Your task to perform on an android device: Open Google Maps Image 0: 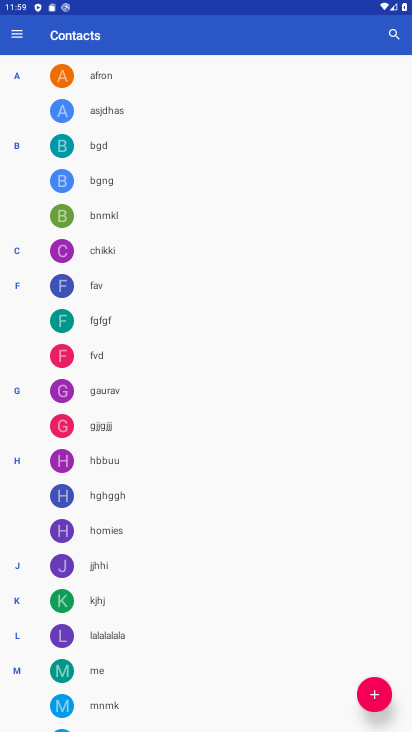
Step 0: press home button
Your task to perform on an android device: Open Google Maps Image 1: 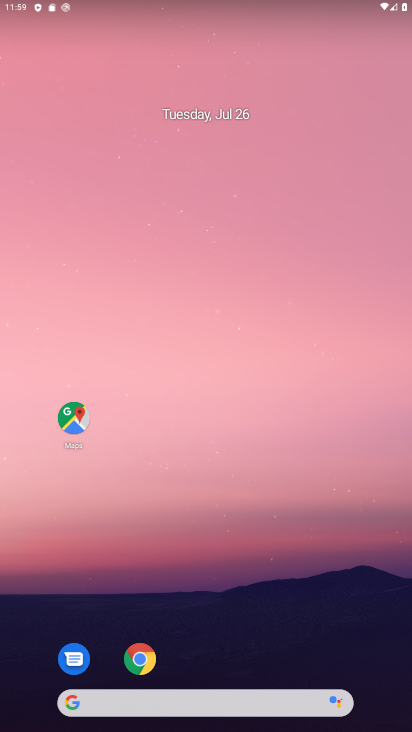
Step 1: drag from (301, 593) to (192, 93)
Your task to perform on an android device: Open Google Maps Image 2: 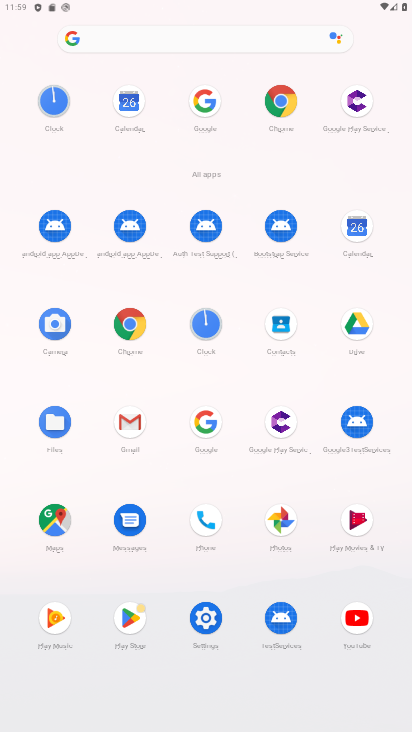
Step 2: click (65, 525)
Your task to perform on an android device: Open Google Maps Image 3: 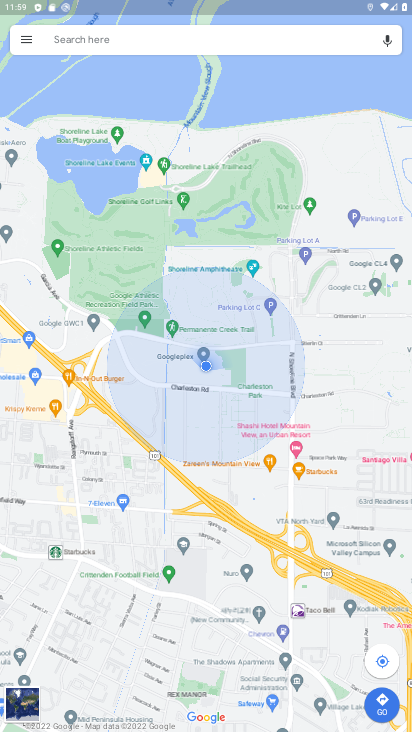
Step 3: task complete